Your task to perform on an android device: turn on improve location accuracy Image 0: 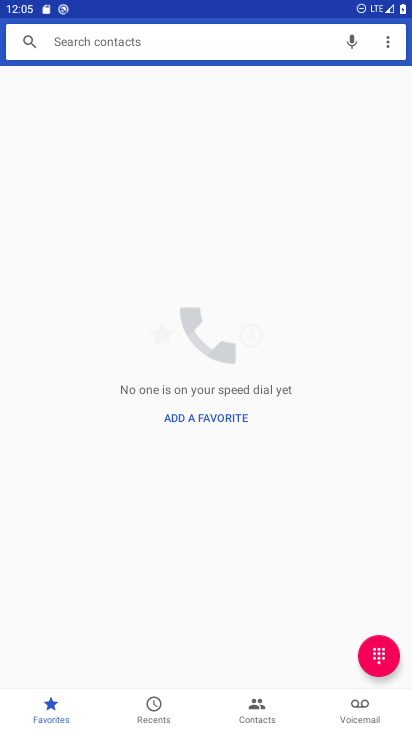
Step 0: press home button
Your task to perform on an android device: turn on improve location accuracy Image 1: 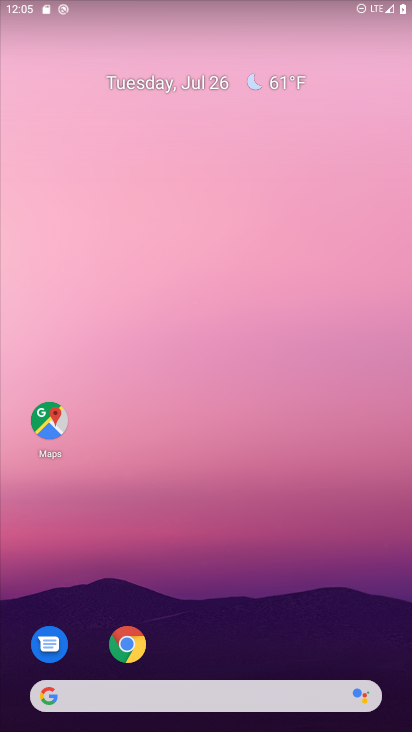
Step 1: drag from (230, 585) to (204, 219)
Your task to perform on an android device: turn on improve location accuracy Image 2: 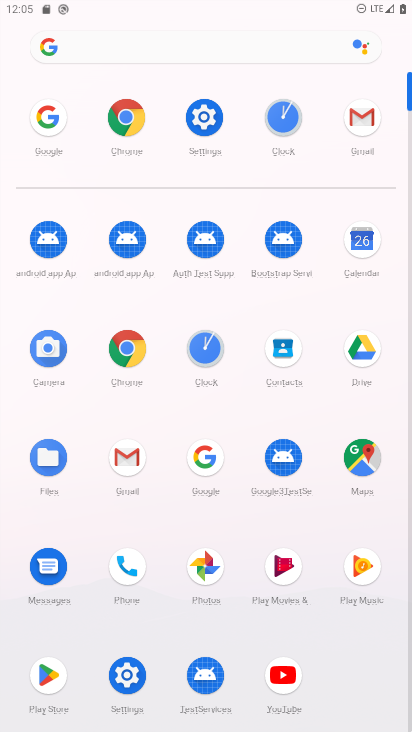
Step 2: click (201, 105)
Your task to perform on an android device: turn on improve location accuracy Image 3: 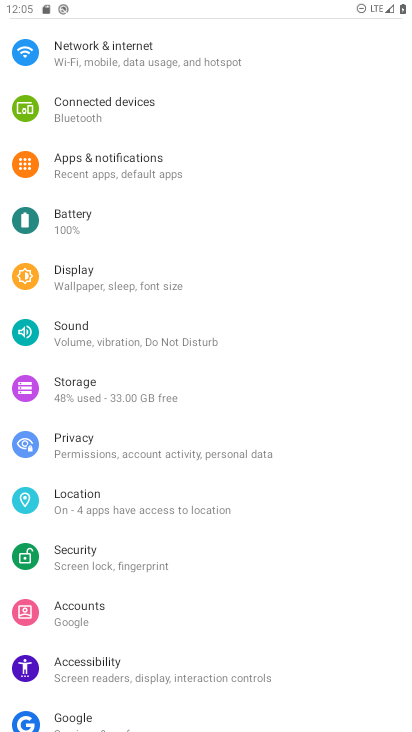
Step 3: click (131, 496)
Your task to perform on an android device: turn on improve location accuracy Image 4: 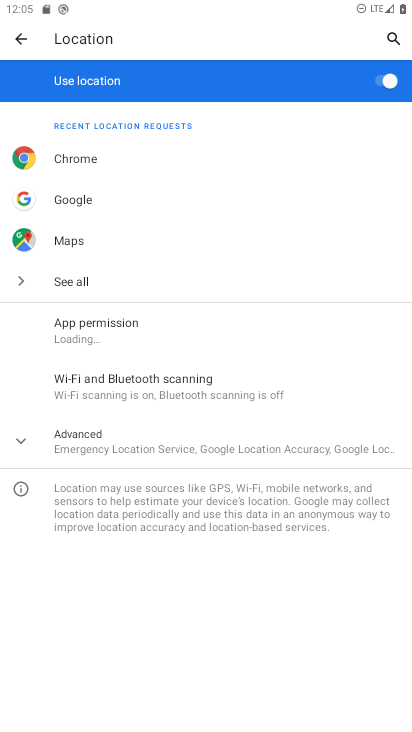
Step 4: click (190, 441)
Your task to perform on an android device: turn on improve location accuracy Image 5: 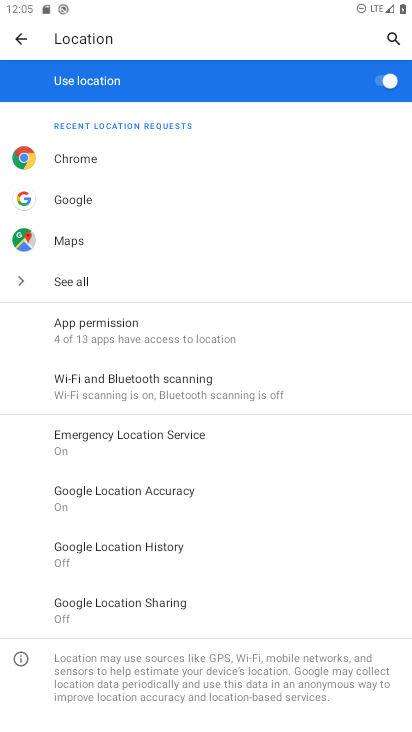
Step 5: click (193, 506)
Your task to perform on an android device: turn on improve location accuracy Image 6: 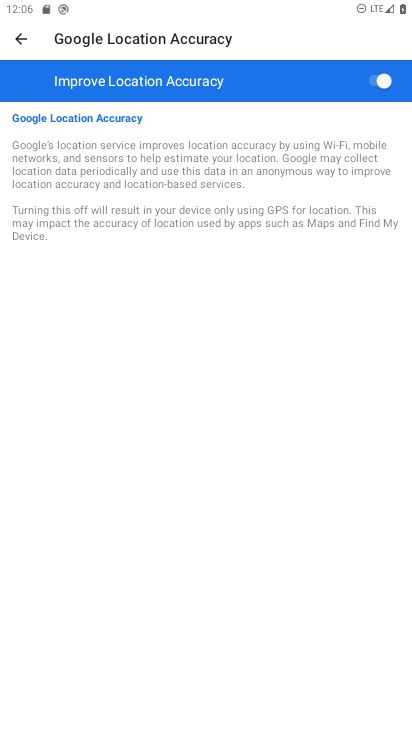
Step 6: task complete